Your task to perform on an android device: turn off data saver in the chrome app Image 0: 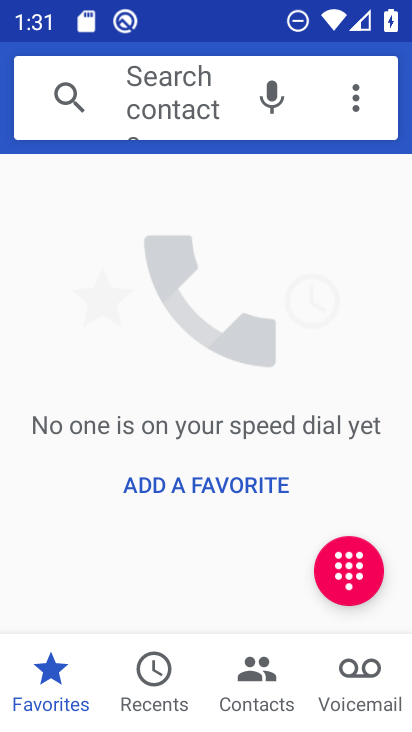
Step 0: press back button
Your task to perform on an android device: turn off data saver in the chrome app Image 1: 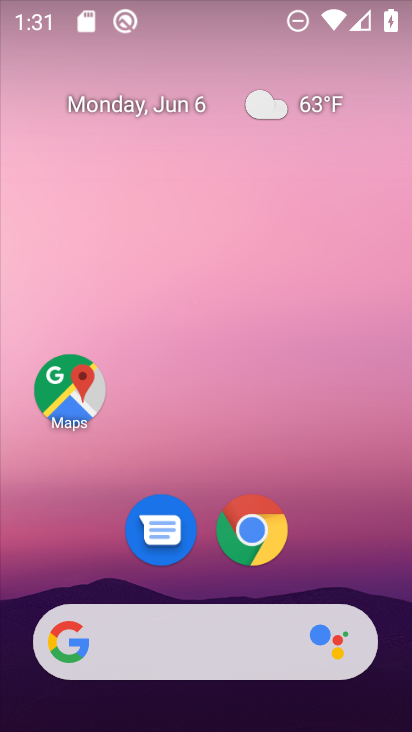
Step 1: click (252, 530)
Your task to perform on an android device: turn off data saver in the chrome app Image 2: 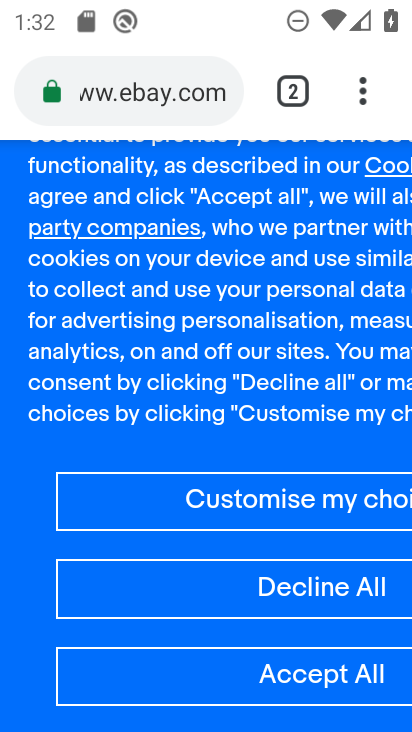
Step 2: click (367, 91)
Your task to perform on an android device: turn off data saver in the chrome app Image 3: 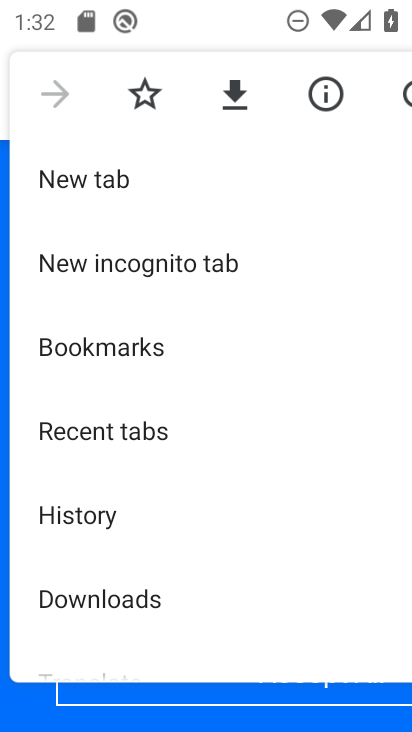
Step 3: drag from (118, 475) to (152, 385)
Your task to perform on an android device: turn off data saver in the chrome app Image 4: 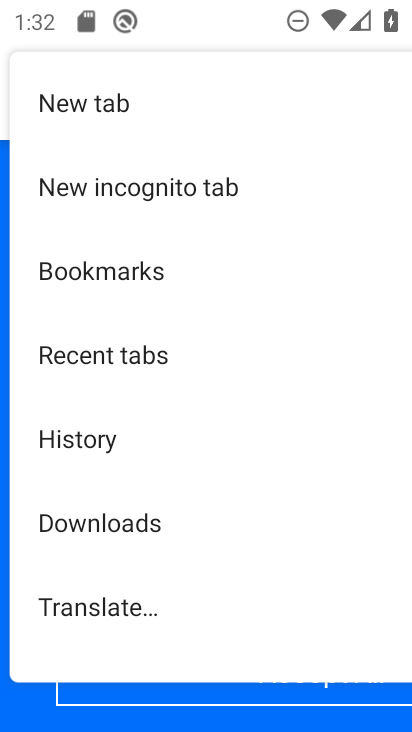
Step 4: drag from (116, 478) to (159, 378)
Your task to perform on an android device: turn off data saver in the chrome app Image 5: 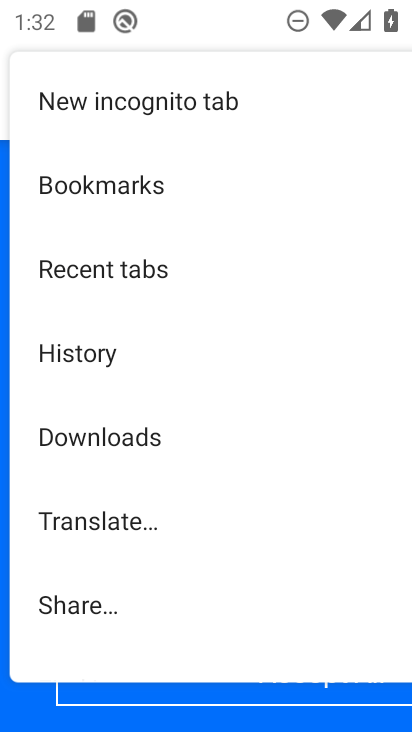
Step 5: drag from (101, 468) to (157, 376)
Your task to perform on an android device: turn off data saver in the chrome app Image 6: 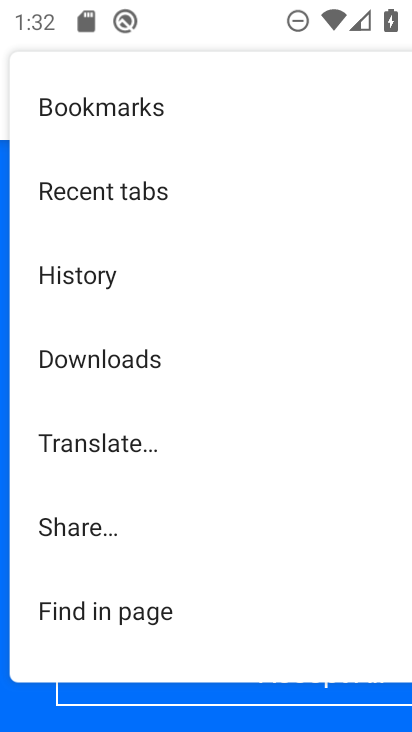
Step 6: drag from (94, 473) to (171, 378)
Your task to perform on an android device: turn off data saver in the chrome app Image 7: 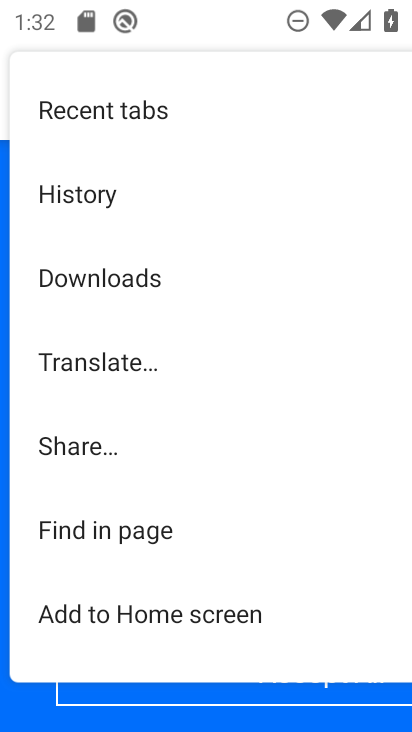
Step 7: drag from (118, 472) to (176, 390)
Your task to perform on an android device: turn off data saver in the chrome app Image 8: 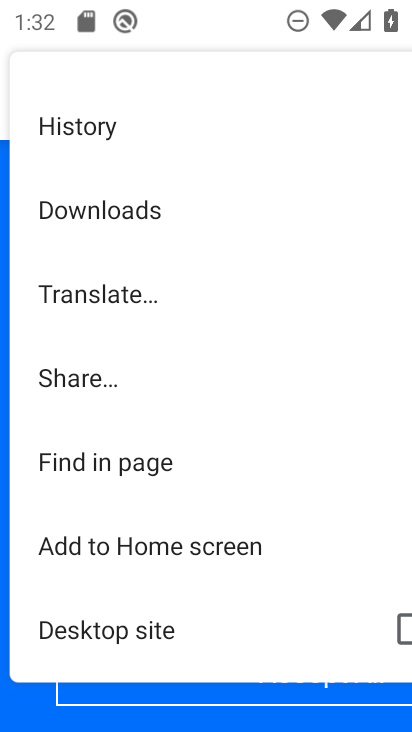
Step 8: drag from (105, 432) to (145, 331)
Your task to perform on an android device: turn off data saver in the chrome app Image 9: 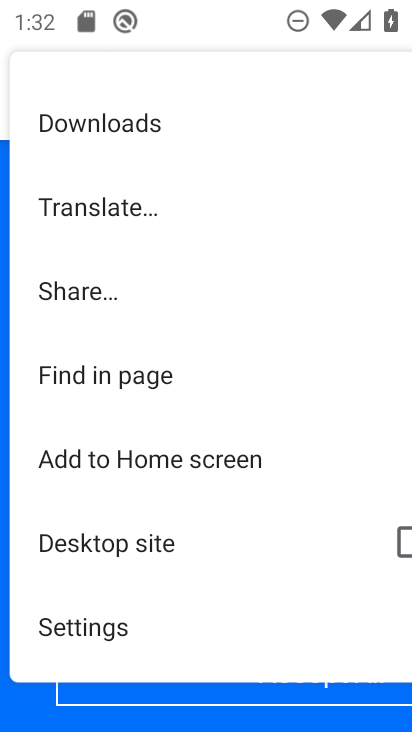
Step 9: drag from (119, 516) to (208, 407)
Your task to perform on an android device: turn off data saver in the chrome app Image 10: 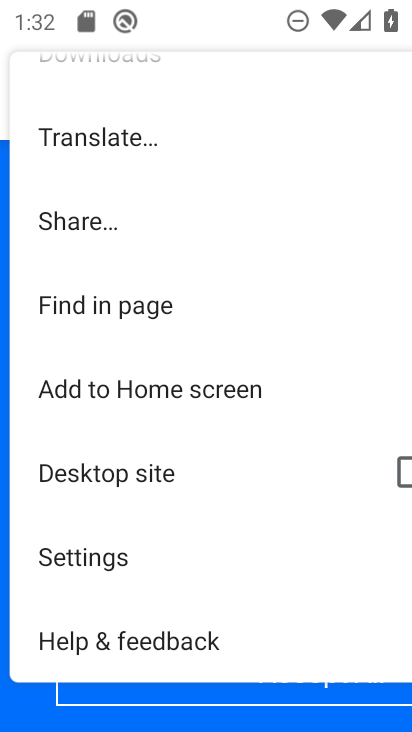
Step 10: click (118, 554)
Your task to perform on an android device: turn off data saver in the chrome app Image 11: 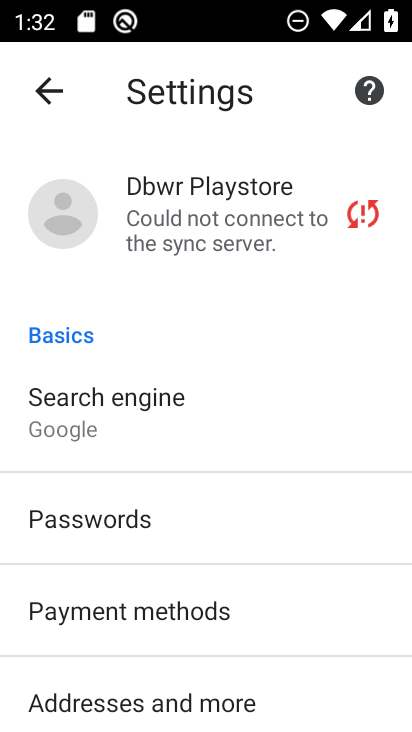
Step 11: drag from (194, 525) to (261, 411)
Your task to perform on an android device: turn off data saver in the chrome app Image 12: 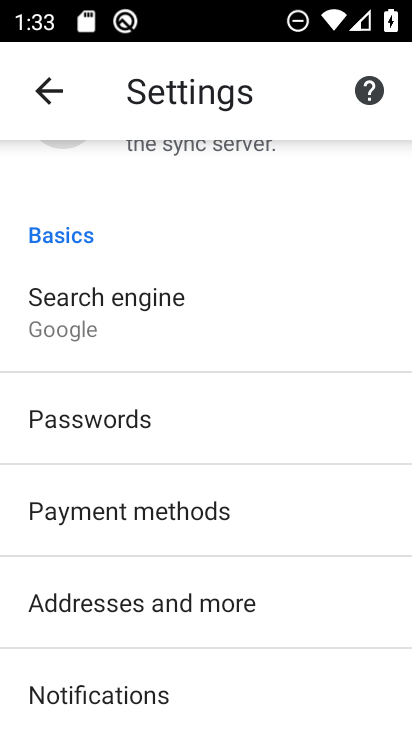
Step 12: drag from (287, 613) to (346, 504)
Your task to perform on an android device: turn off data saver in the chrome app Image 13: 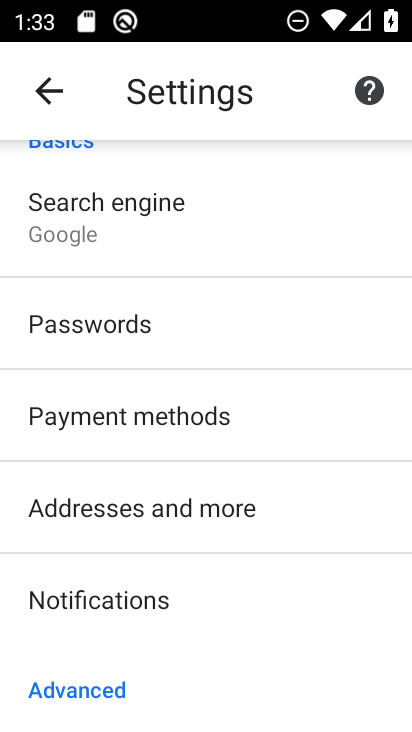
Step 13: drag from (185, 646) to (280, 541)
Your task to perform on an android device: turn off data saver in the chrome app Image 14: 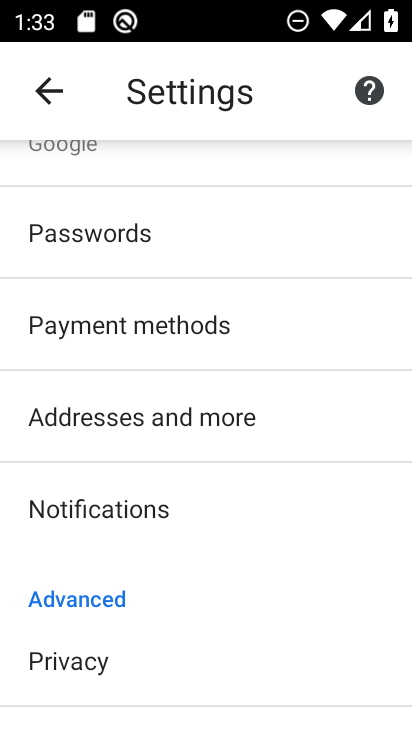
Step 14: drag from (187, 627) to (266, 517)
Your task to perform on an android device: turn off data saver in the chrome app Image 15: 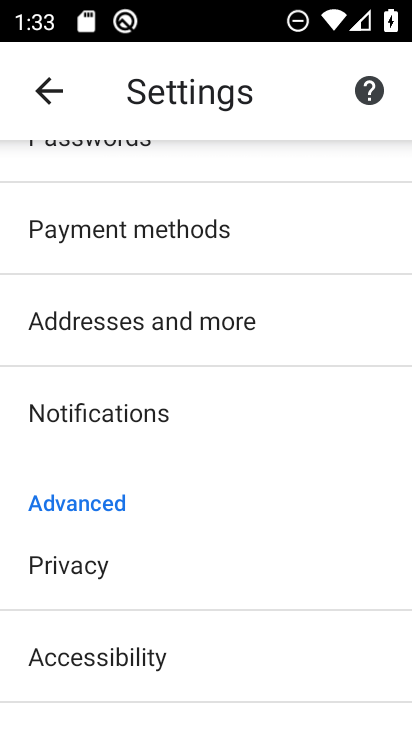
Step 15: drag from (198, 656) to (257, 559)
Your task to perform on an android device: turn off data saver in the chrome app Image 16: 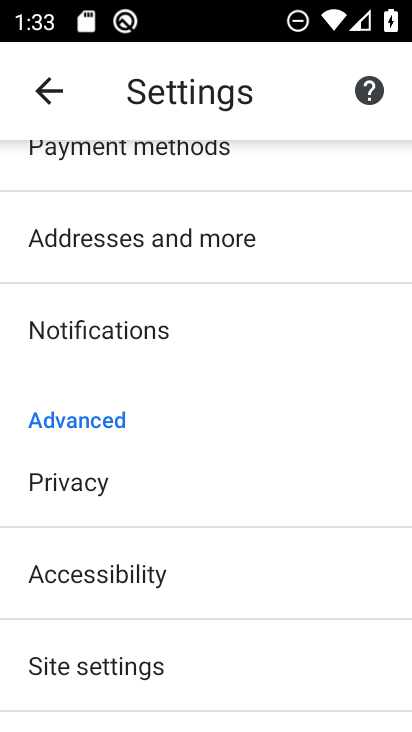
Step 16: drag from (219, 631) to (264, 566)
Your task to perform on an android device: turn off data saver in the chrome app Image 17: 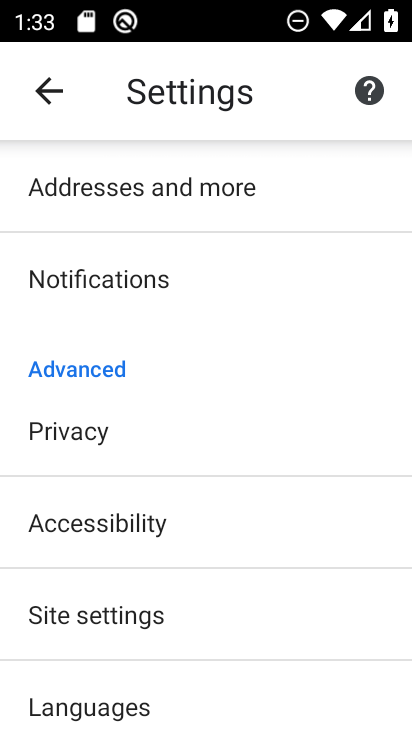
Step 17: drag from (186, 685) to (239, 591)
Your task to perform on an android device: turn off data saver in the chrome app Image 18: 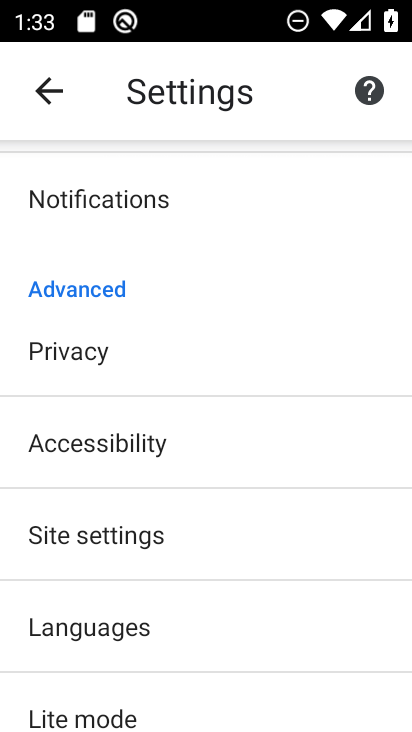
Step 18: drag from (185, 689) to (297, 550)
Your task to perform on an android device: turn off data saver in the chrome app Image 19: 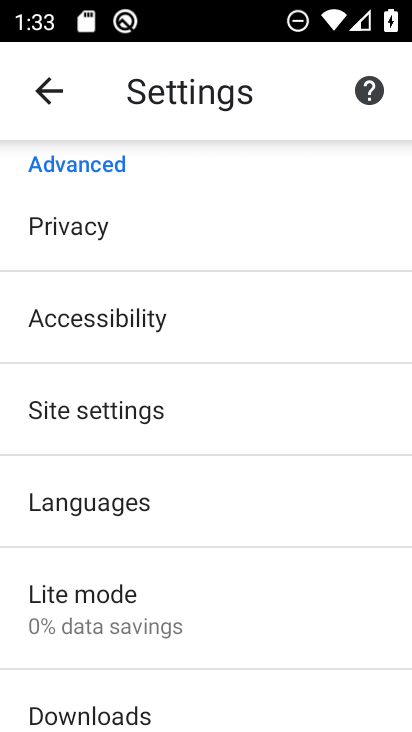
Step 19: click (223, 602)
Your task to perform on an android device: turn off data saver in the chrome app Image 20: 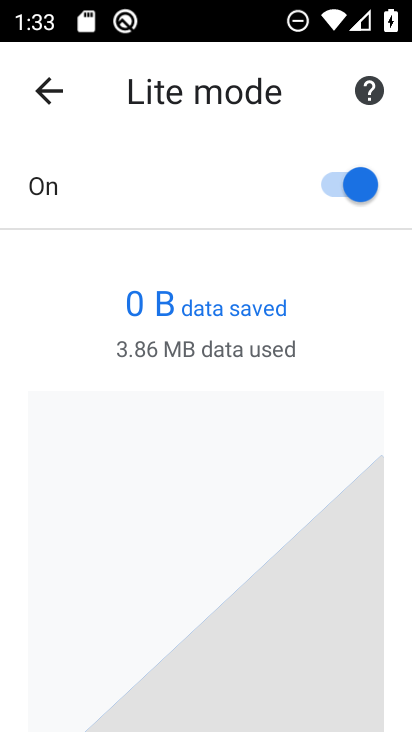
Step 20: click (335, 188)
Your task to perform on an android device: turn off data saver in the chrome app Image 21: 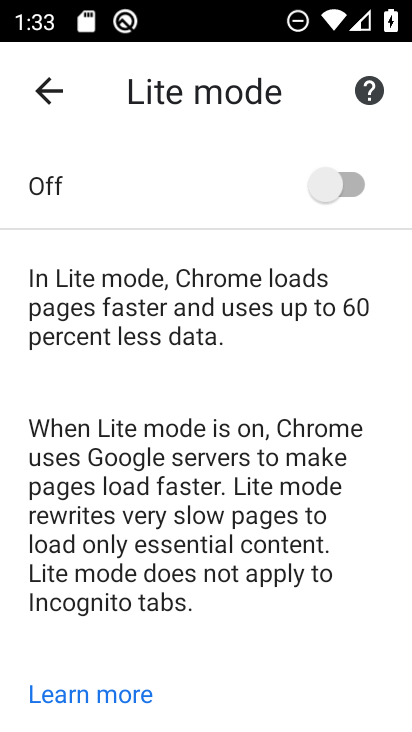
Step 21: task complete